Your task to perform on an android device: turn pop-ups off in chrome Image 0: 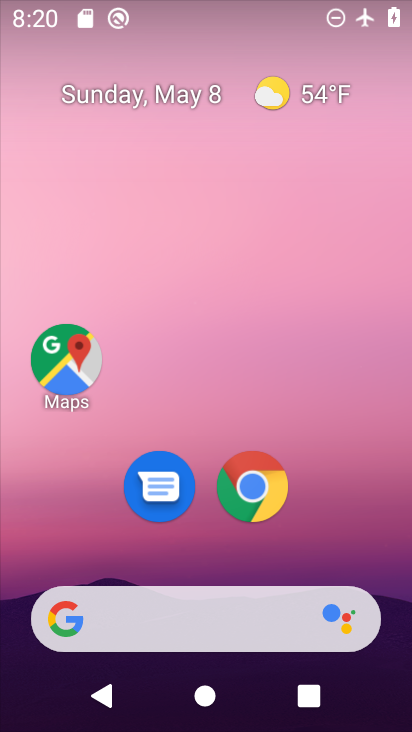
Step 0: click (244, 487)
Your task to perform on an android device: turn pop-ups off in chrome Image 1: 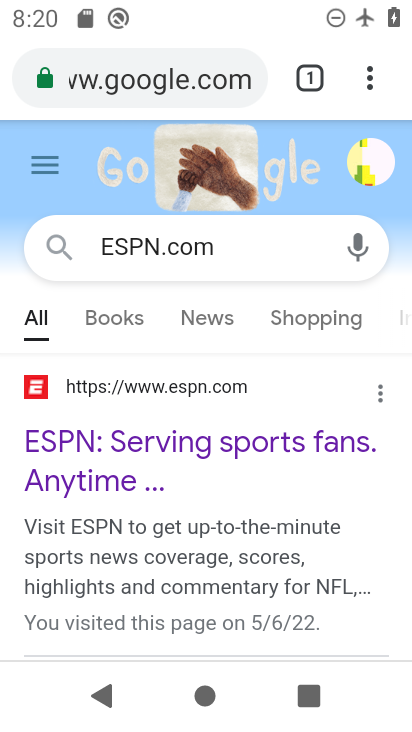
Step 1: click (372, 72)
Your task to perform on an android device: turn pop-ups off in chrome Image 2: 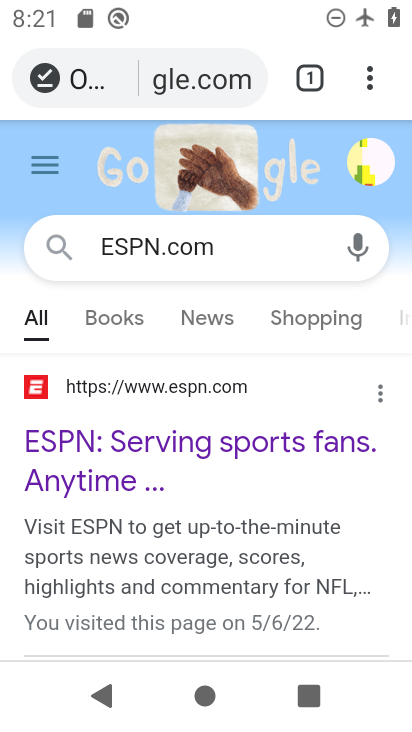
Step 2: click (372, 72)
Your task to perform on an android device: turn pop-ups off in chrome Image 3: 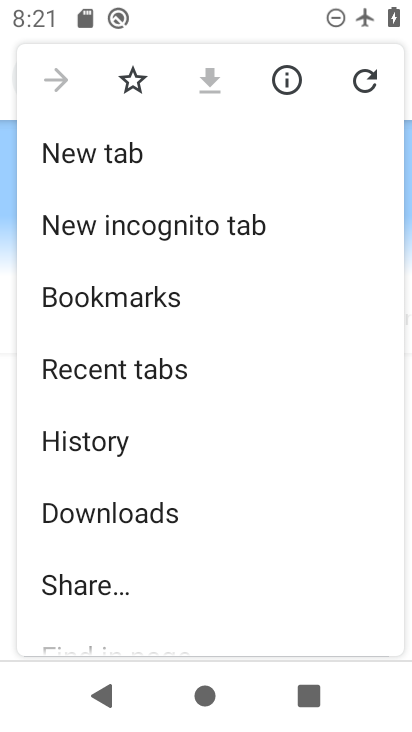
Step 3: drag from (159, 579) to (181, 266)
Your task to perform on an android device: turn pop-ups off in chrome Image 4: 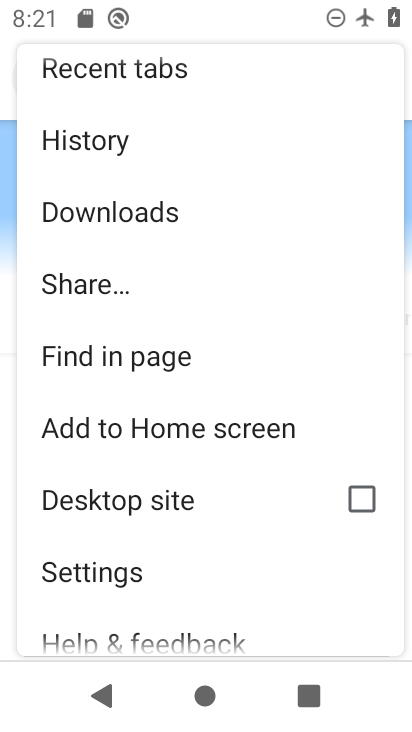
Step 4: click (125, 573)
Your task to perform on an android device: turn pop-ups off in chrome Image 5: 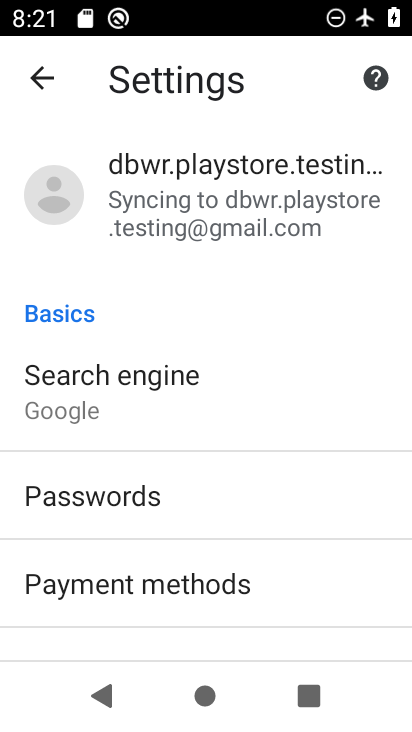
Step 5: drag from (165, 575) to (116, 265)
Your task to perform on an android device: turn pop-ups off in chrome Image 6: 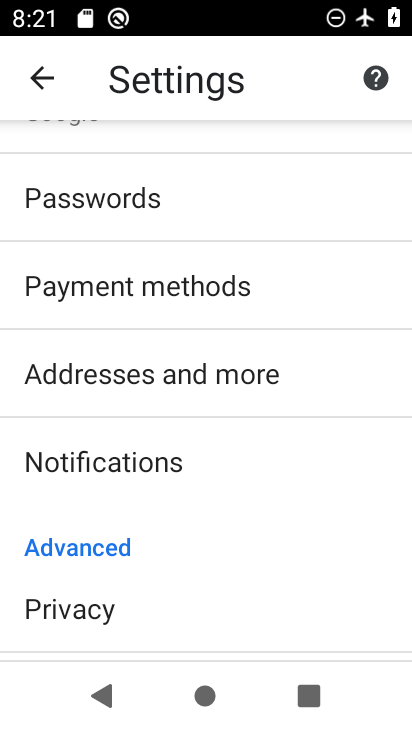
Step 6: drag from (175, 564) to (224, 244)
Your task to perform on an android device: turn pop-ups off in chrome Image 7: 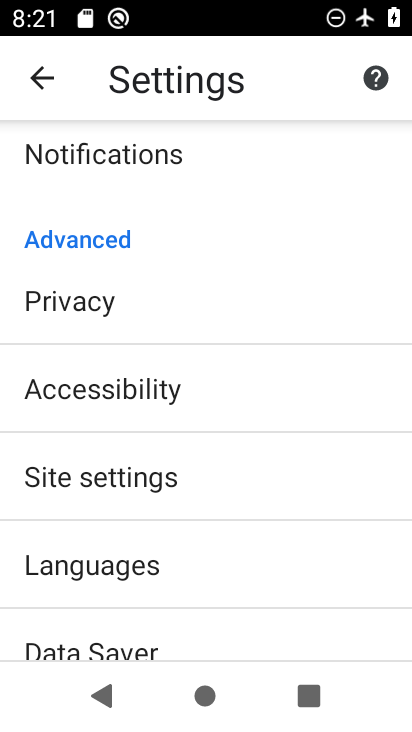
Step 7: click (156, 497)
Your task to perform on an android device: turn pop-ups off in chrome Image 8: 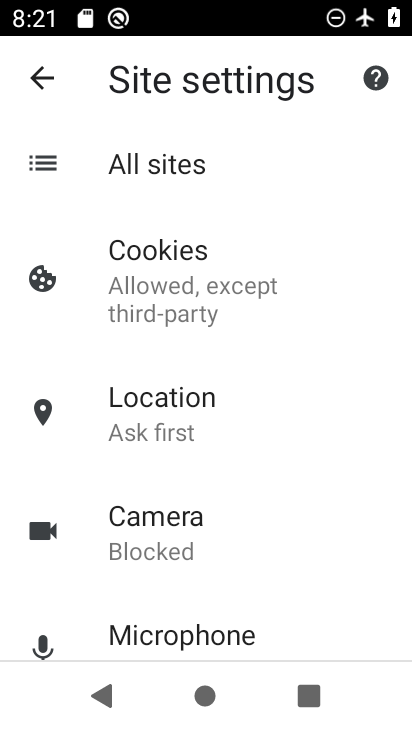
Step 8: drag from (224, 575) to (240, 261)
Your task to perform on an android device: turn pop-ups off in chrome Image 9: 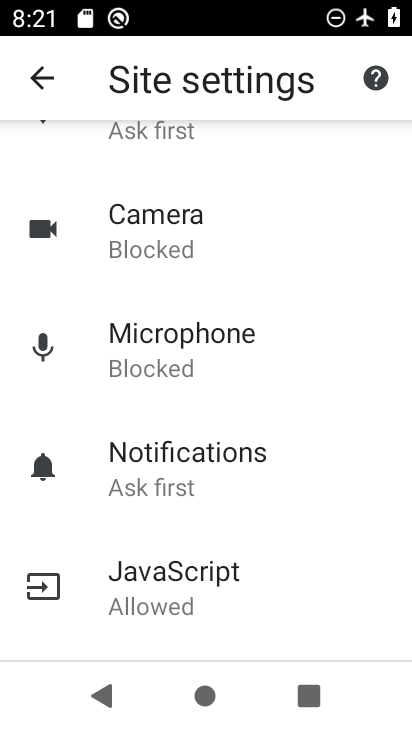
Step 9: drag from (175, 525) to (188, 342)
Your task to perform on an android device: turn pop-ups off in chrome Image 10: 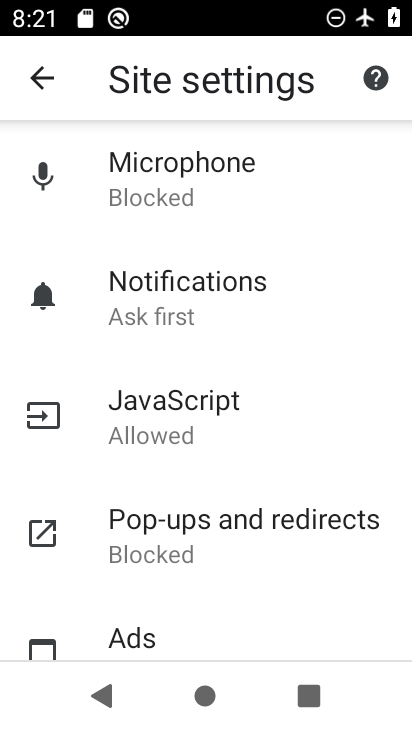
Step 10: click (177, 545)
Your task to perform on an android device: turn pop-ups off in chrome Image 11: 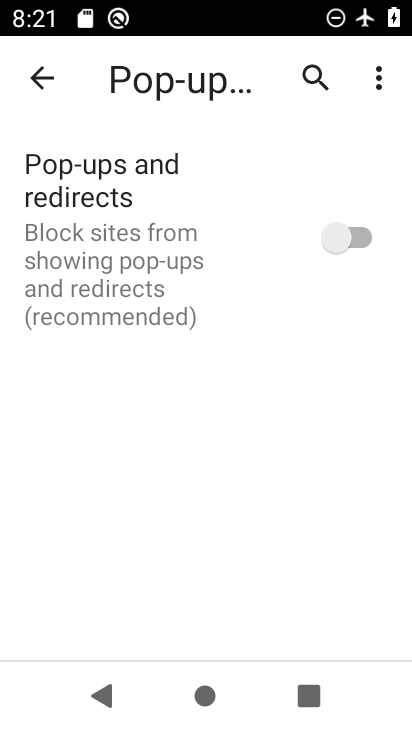
Step 11: task complete